Your task to perform on an android device: turn on improve location accuracy Image 0: 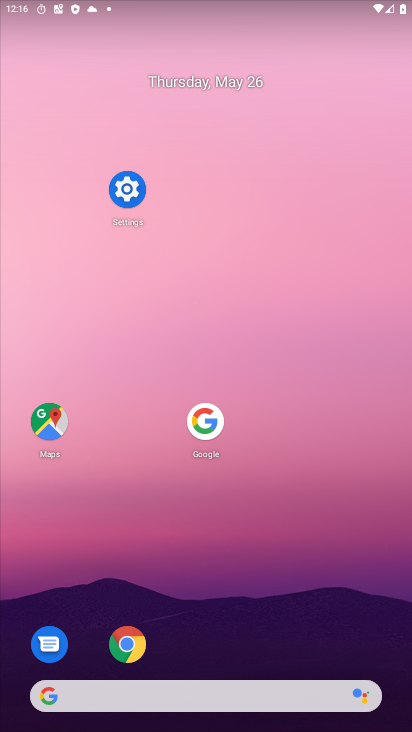
Step 0: drag from (232, 528) to (219, 96)
Your task to perform on an android device: turn on improve location accuracy Image 1: 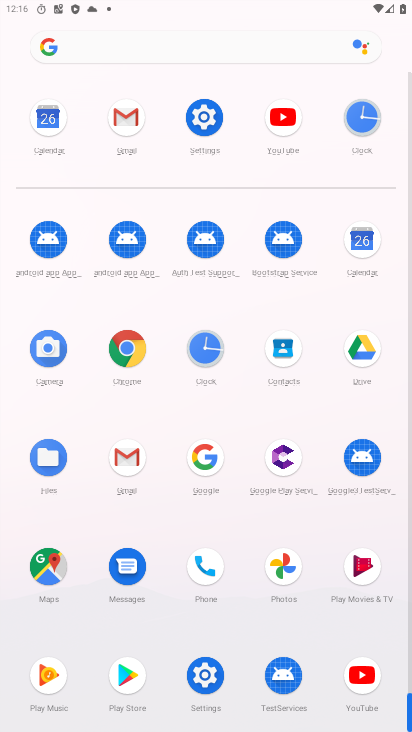
Step 1: click (203, 108)
Your task to perform on an android device: turn on improve location accuracy Image 2: 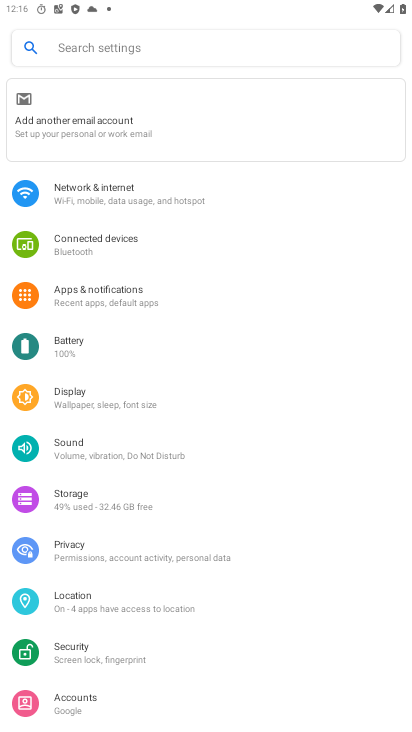
Step 2: click (94, 597)
Your task to perform on an android device: turn on improve location accuracy Image 3: 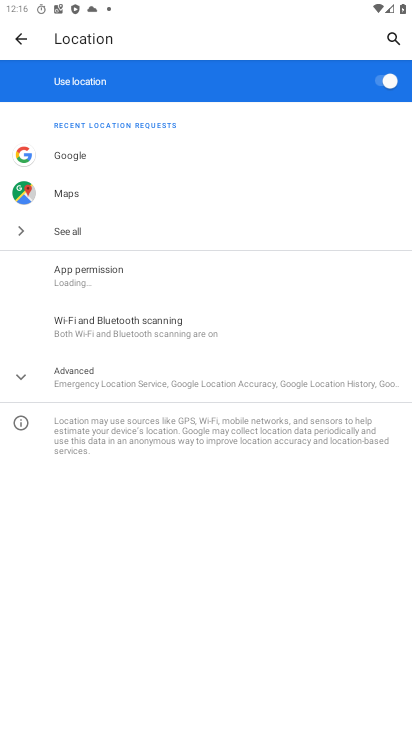
Step 3: click (101, 376)
Your task to perform on an android device: turn on improve location accuracy Image 4: 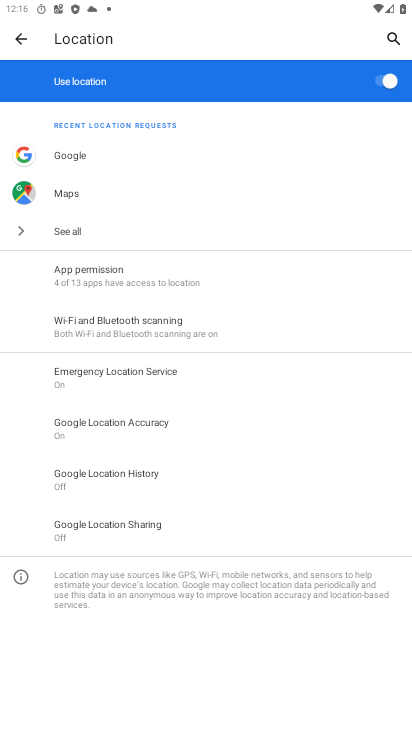
Step 4: click (125, 425)
Your task to perform on an android device: turn on improve location accuracy Image 5: 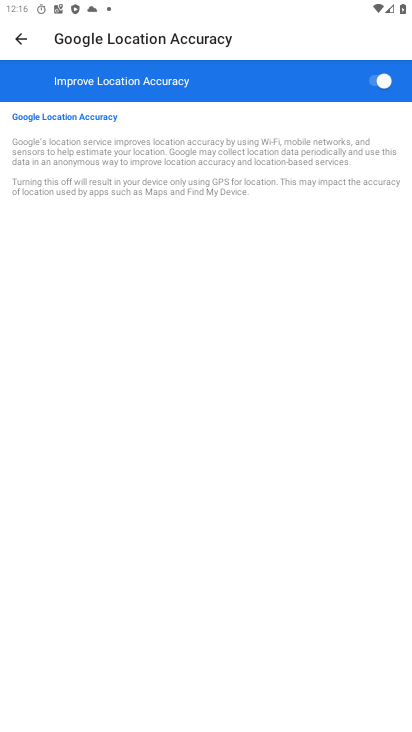
Step 5: task complete